Your task to perform on an android device: Open Reddit.com Image 0: 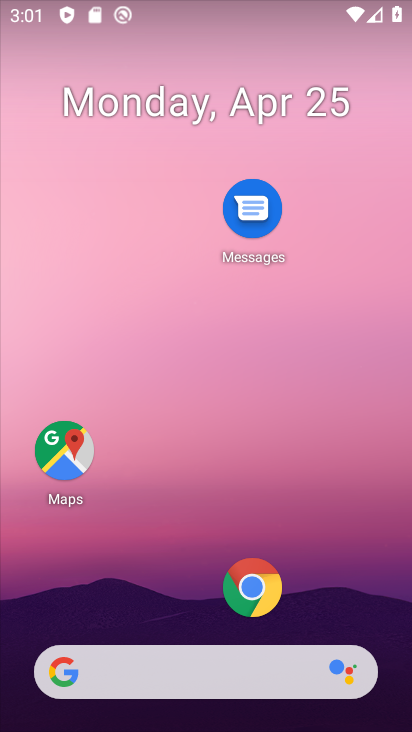
Step 0: click (260, 593)
Your task to perform on an android device: Open Reddit.com Image 1: 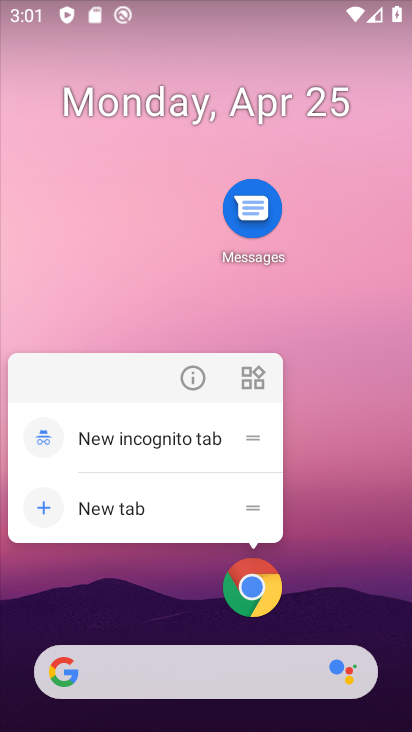
Step 1: click (194, 374)
Your task to perform on an android device: Open Reddit.com Image 2: 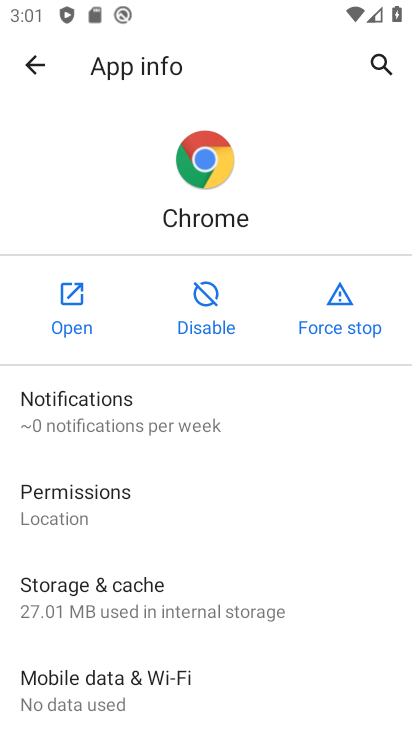
Step 2: click (106, 320)
Your task to perform on an android device: Open Reddit.com Image 3: 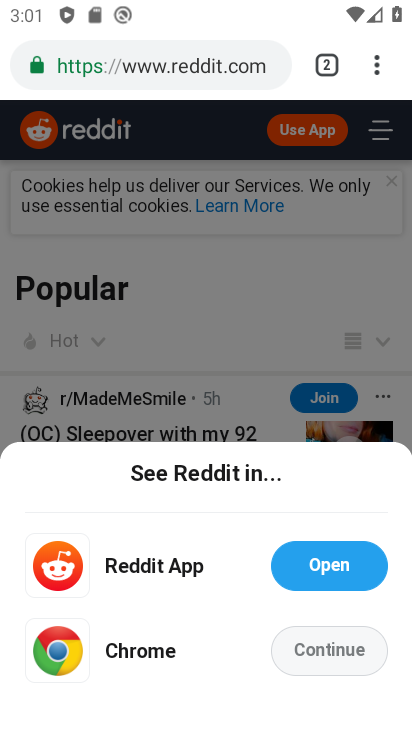
Step 3: task complete